Your task to perform on an android device: see sites visited before in the chrome app Image 0: 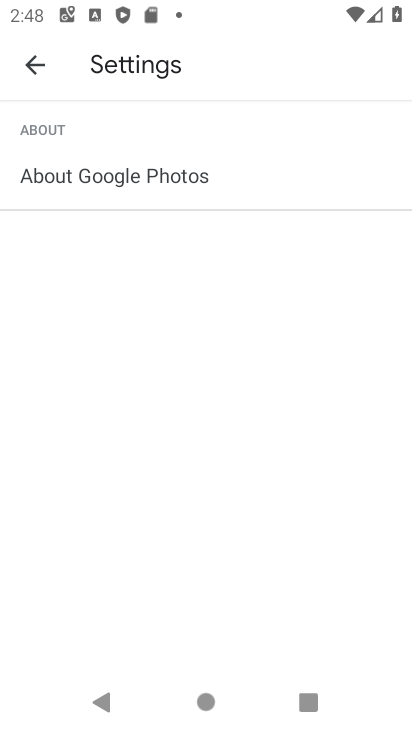
Step 0: press home button
Your task to perform on an android device: see sites visited before in the chrome app Image 1: 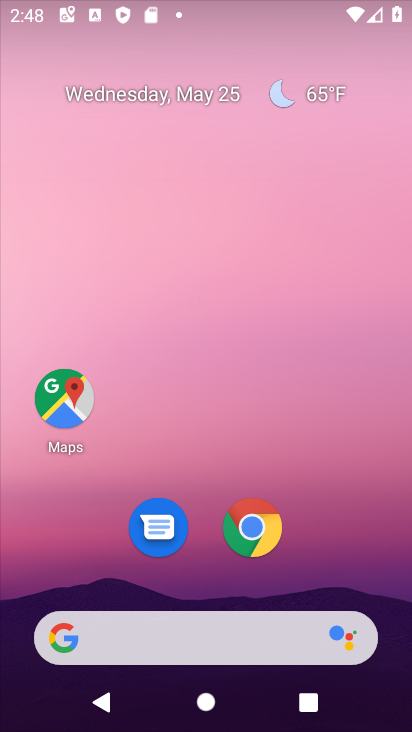
Step 1: drag from (285, 641) to (255, 94)
Your task to perform on an android device: see sites visited before in the chrome app Image 2: 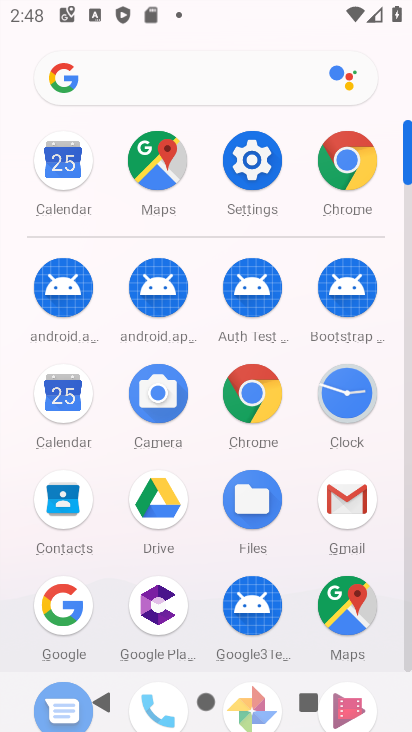
Step 2: click (266, 403)
Your task to perform on an android device: see sites visited before in the chrome app Image 3: 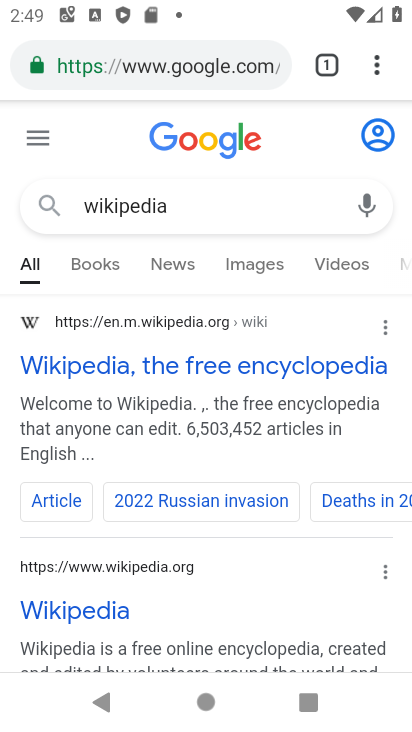
Step 3: click (383, 66)
Your task to perform on an android device: see sites visited before in the chrome app Image 4: 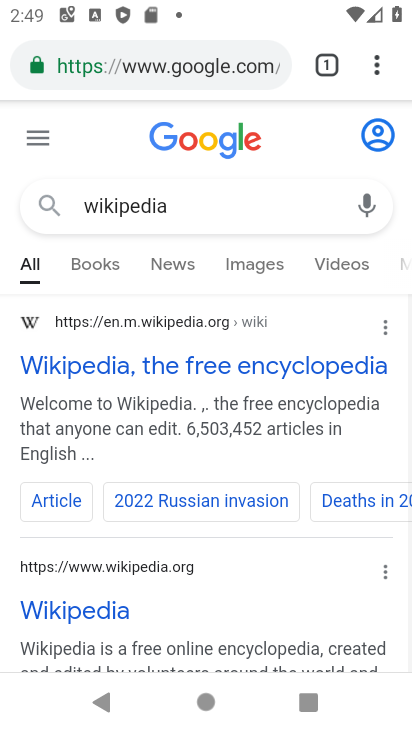
Step 4: task complete